Your task to perform on an android device: What's the weather? Image 0: 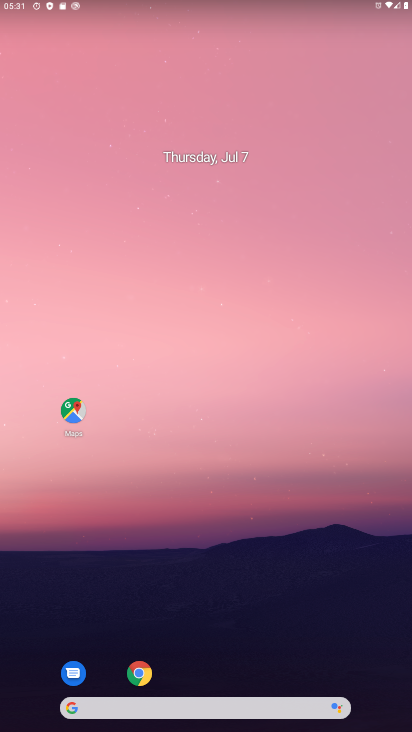
Step 0: drag from (294, 695) to (288, 46)
Your task to perform on an android device: What's the weather? Image 1: 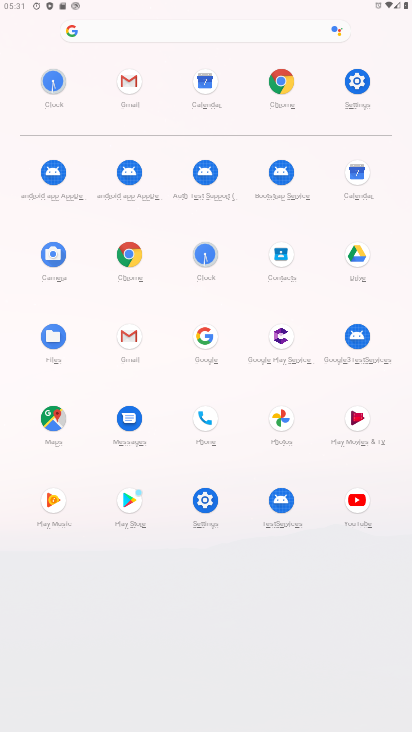
Step 1: click (208, 344)
Your task to perform on an android device: What's the weather? Image 2: 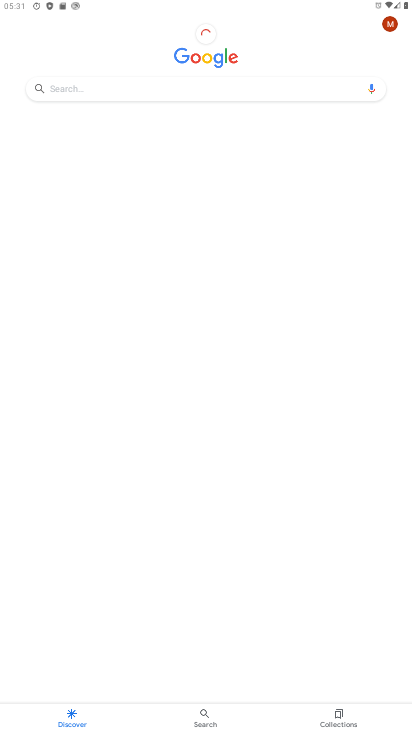
Step 2: click (159, 96)
Your task to perform on an android device: What's the weather? Image 3: 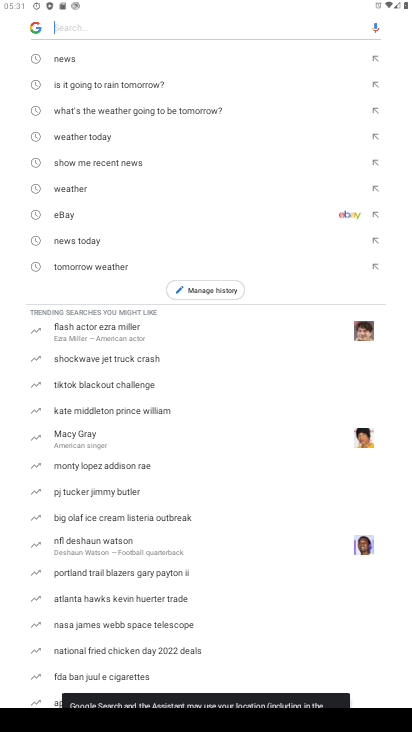
Step 3: click (90, 182)
Your task to perform on an android device: What's the weather? Image 4: 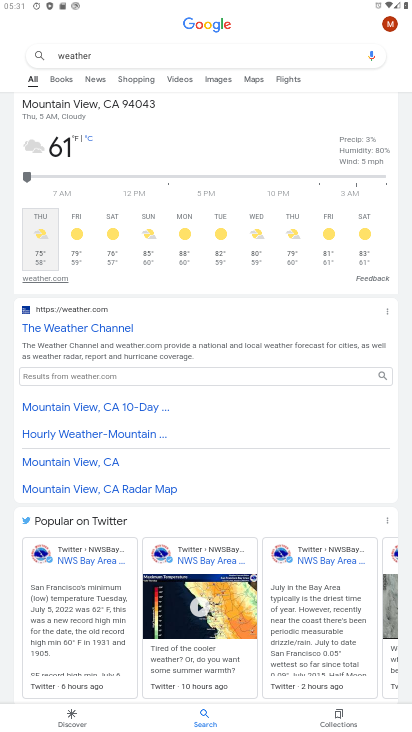
Step 4: task complete